Your task to perform on an android device: toggle javascript in the chrome app Image 0: 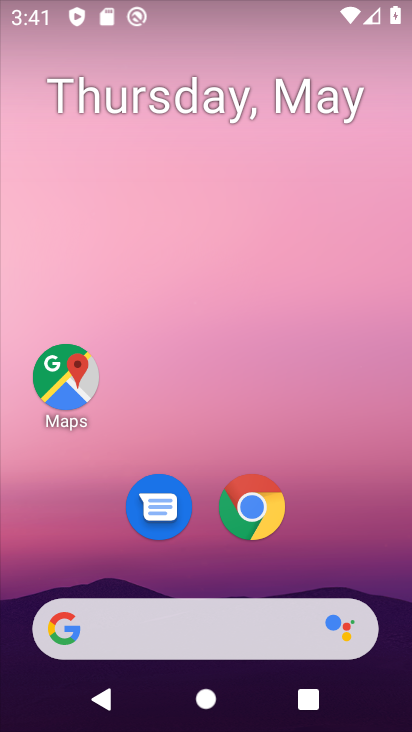
Step 0: click (257, 493)
Your task to perform on an android device: toggle javascript in the chrome app Image 1: 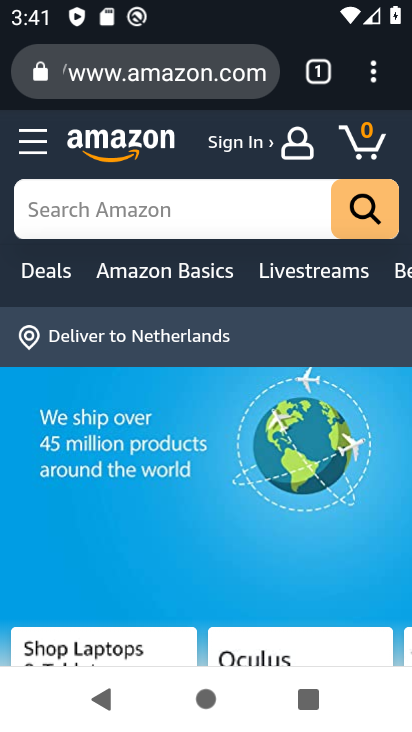
Step 1: click (373, 75)
Your task to perform on an android device: toggle javascript in the chrome app Image 2: 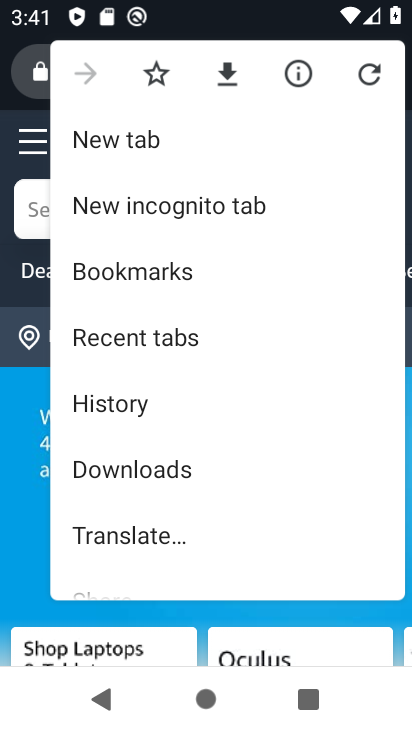
Step 2: drag from (220, 515) to (161, 214)
Your task to perform on an android device: toggle javascript in the chrome app Image 3: 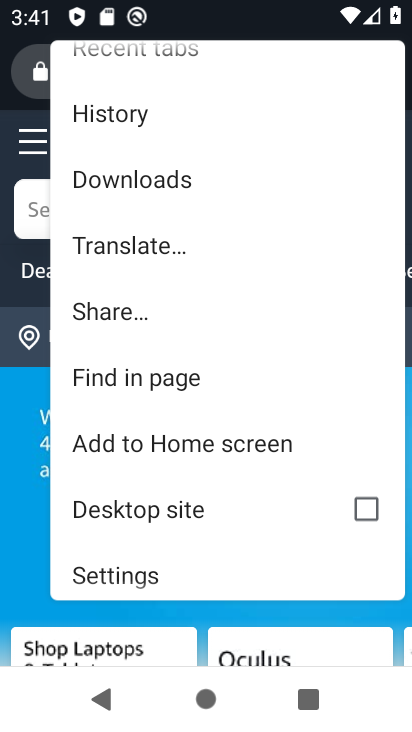
Step 3: click (152, 571)
Your task to perform on an android device: toggle javascript in the chrome app Image 4: 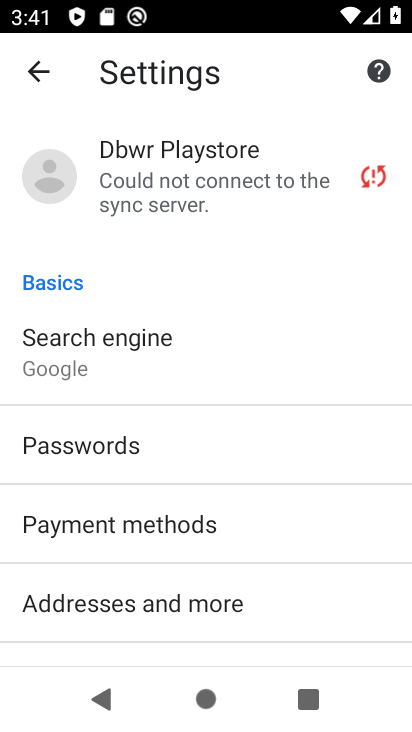
Step 4: drag from (200, 582) to (217, 228)
Your task to perform on an android device: toggle javascript in the chrome app Image 5: 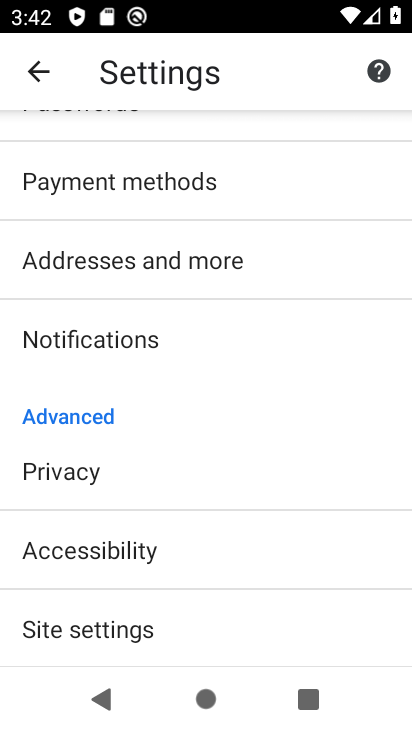
Step 5: click (207, 619)
Your task to perform on an android device: toggle javascript in the chrome app Image 6: 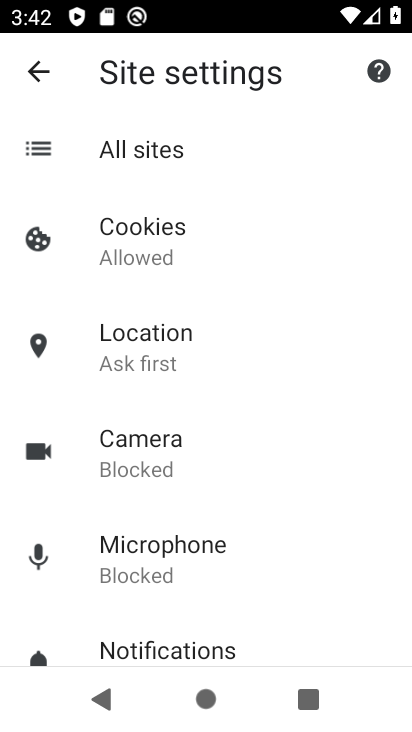
Step 6: drag from (208, 582) to (185, 283)
Your task to perform on an android device: toggle javascript in the chrome app Image 7: 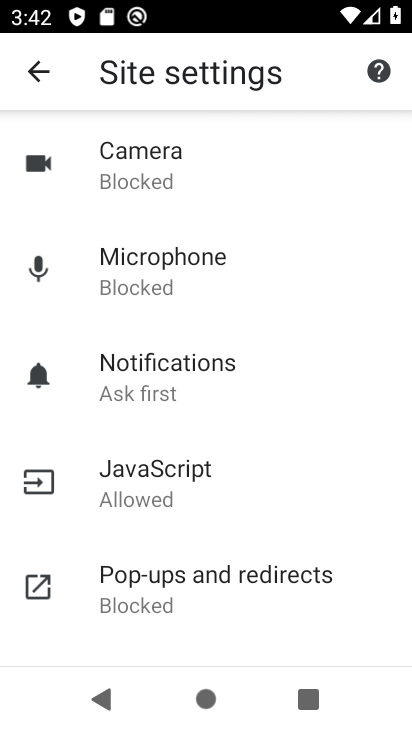
Step 7: click (165, 496)
Your task to perform on an android device: toggle javascript in the chrome app Image 8: 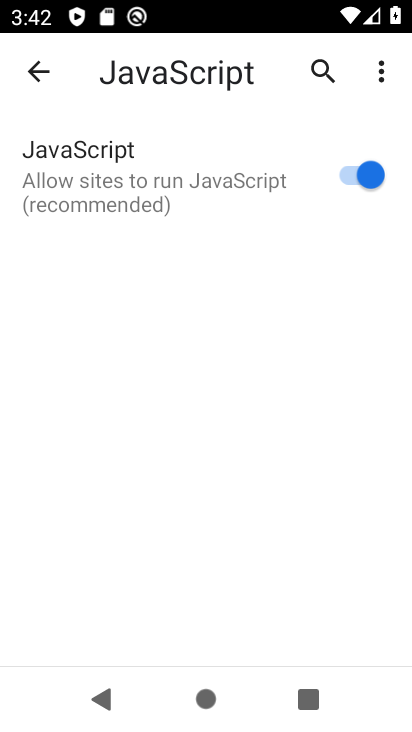
Step 8: click (339, 177)
Your task to perform on an android device: toggle javascript in the chrome app Image 9: 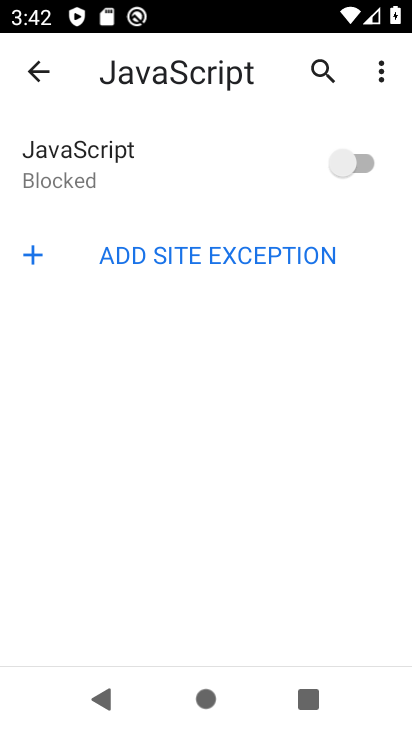
Step 9: task complete